Your task to perform on an android device: empty trash in the gmail app Image 0: 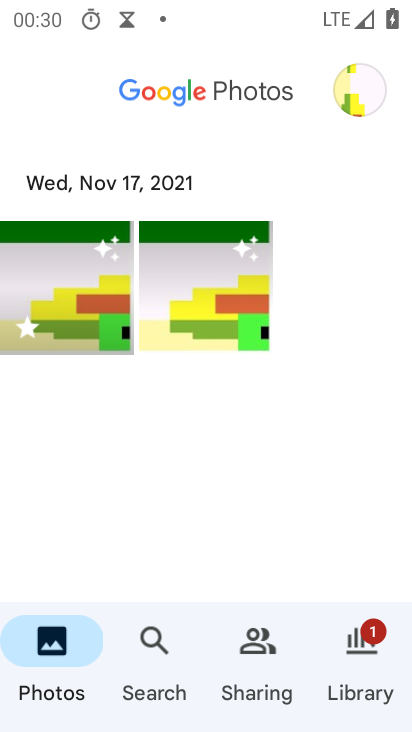
Step 0: press home button
Your task to perform on an android device: empty trash in the gmail app Image 1: 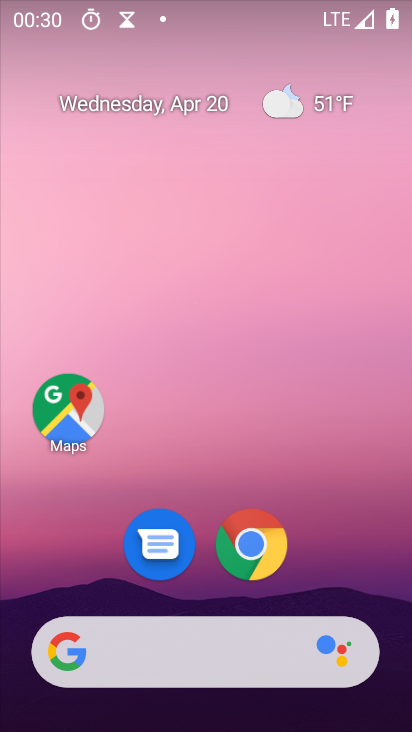
Step 1: drag from (327, 570) to (360, 188)
Your task to perform on an android device: empty trash in the gmail app Image 2: 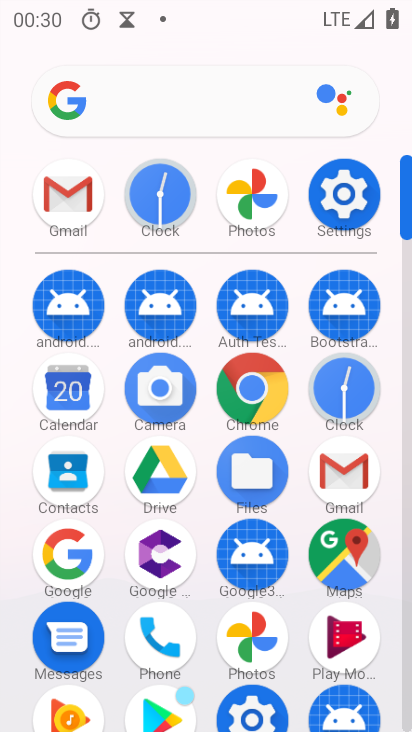
Step 2: click (348, 474)
Your task to perform on an android device: empty trash in the gmail app Image 3: 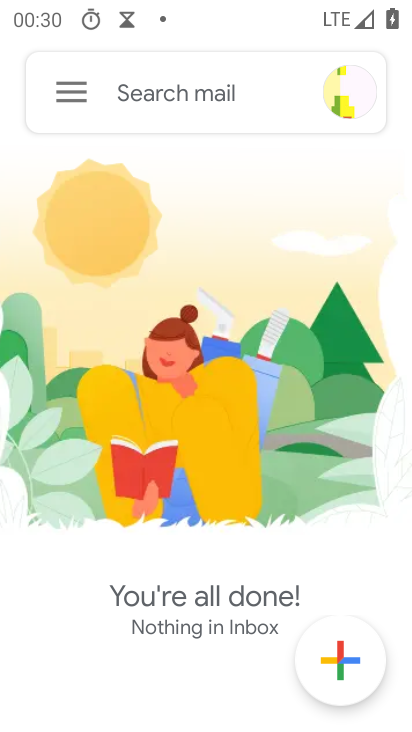
Step 3: click (38, 91)
Your task to perform on an android device: empty trash in the gmail app Image 4: 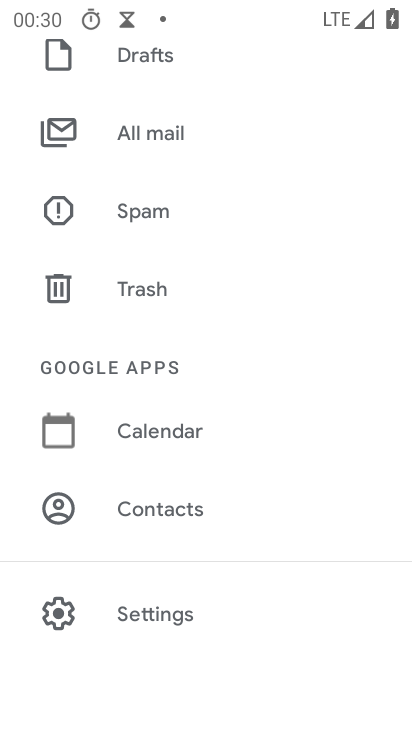
Step 4: click (125, 297)
Your task to perform on an android device: empty trash in the gmail app Image 5: 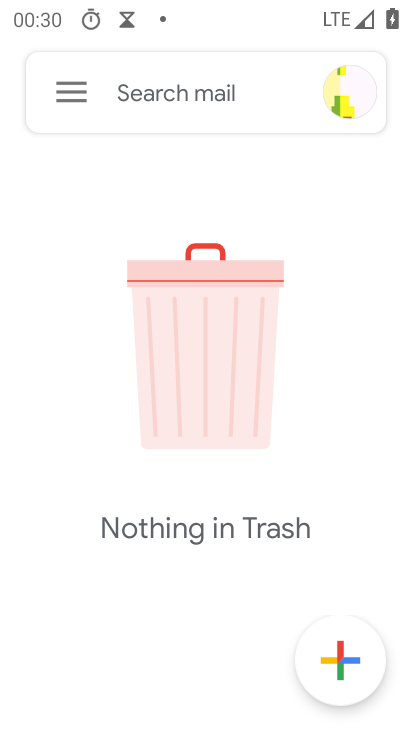
Step 5: task complete